Your task to perform on an android device: turn off wifi Image 0: 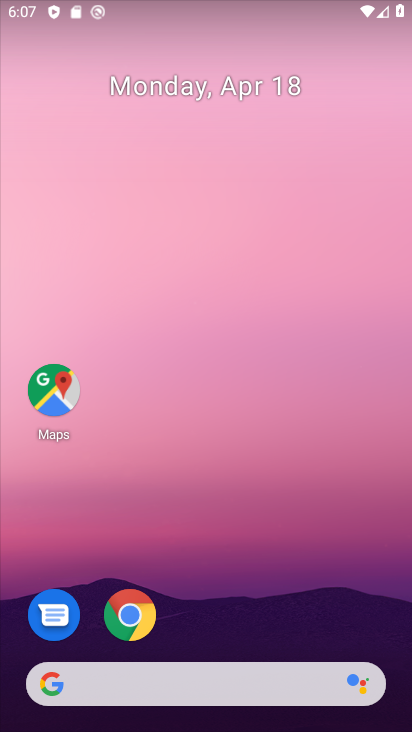
Step 0: drag from (301, 0) to (330, 580)
Your task to perform on an android device: turn off wifi Image 1: 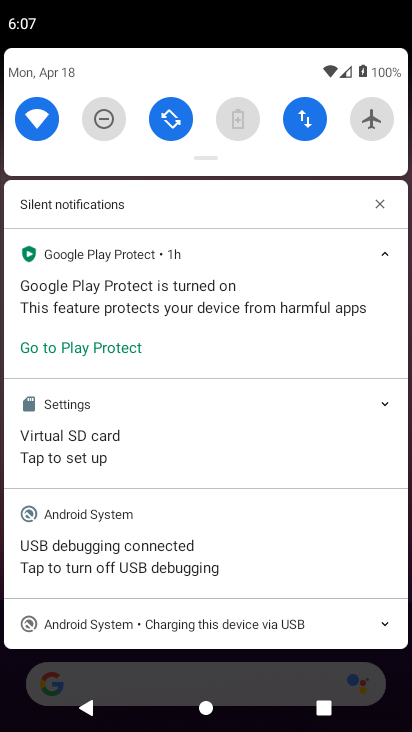
Step 1: click (49, 110)
Your task to perform on an android device: turn off wifi Image 2: 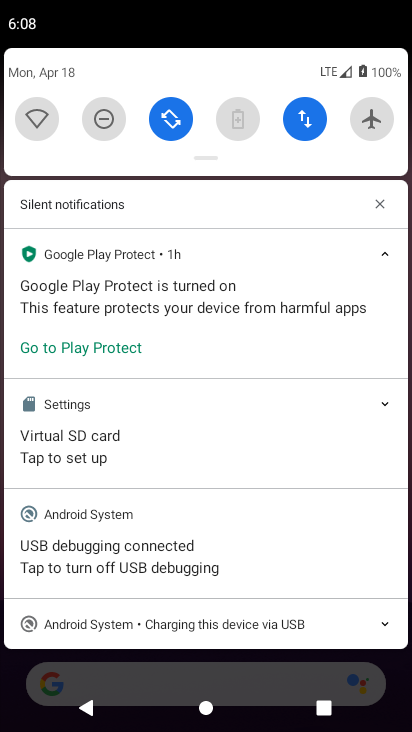
Step 2: task complete